Your task to perform on an android device: turn off wifi Image 0: 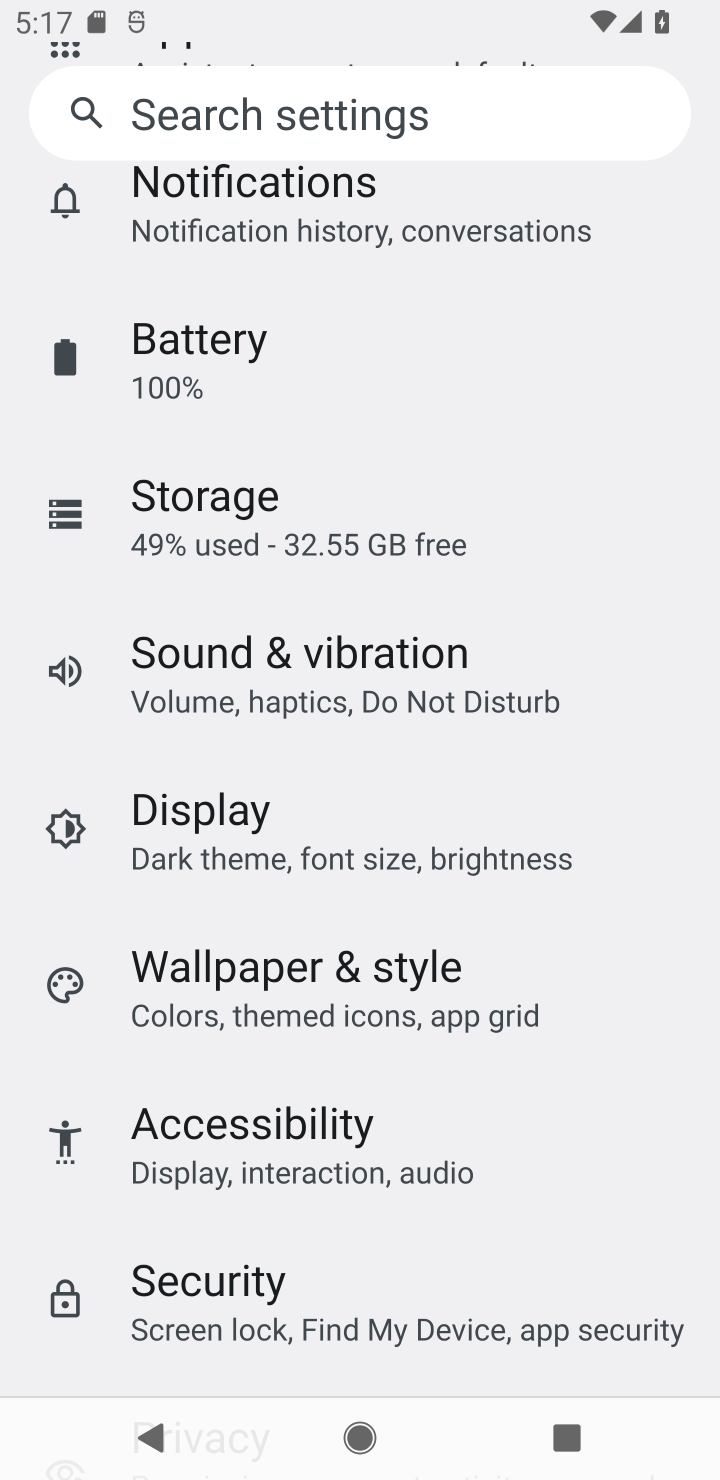
Step 0: drag from (538, 429) to (517, 1124)
Your task to perform on an android device: turn off wifi Image 1: 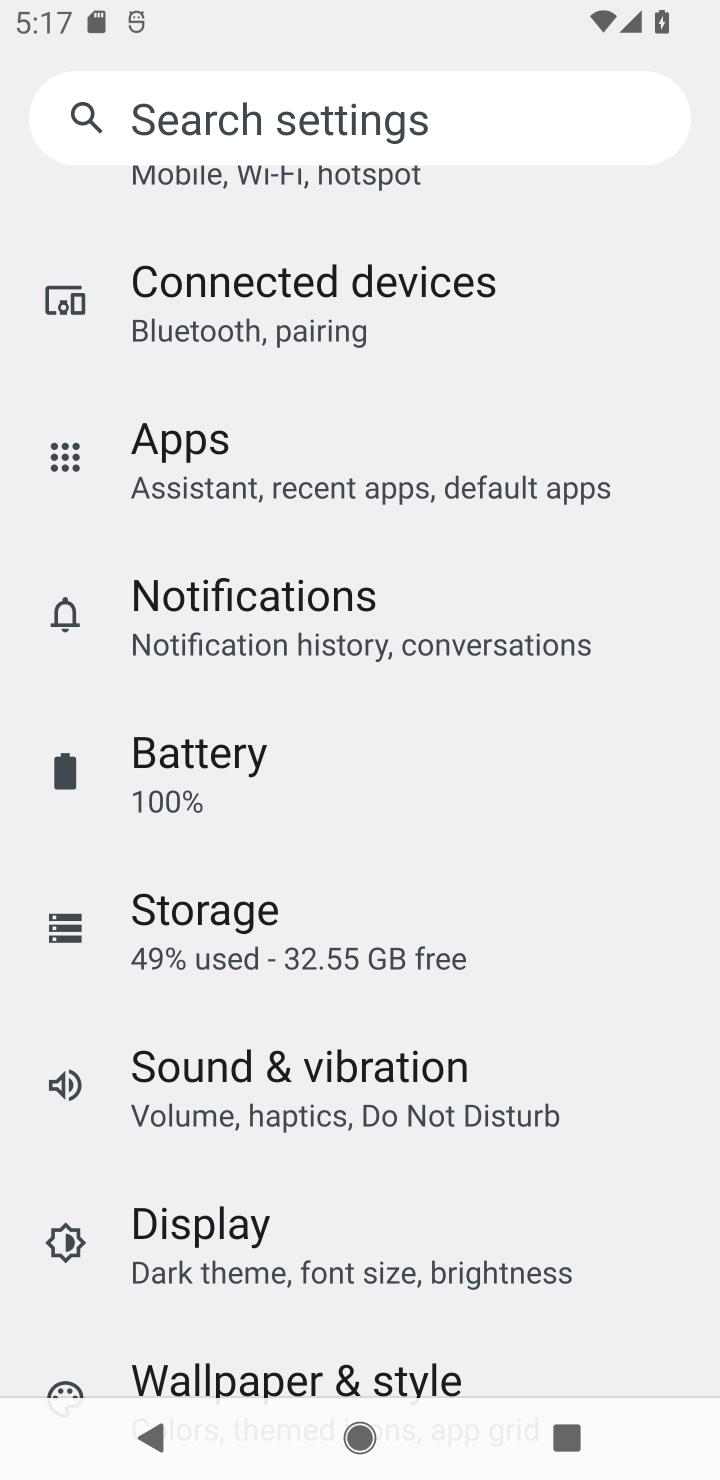
Step 1: drag from (613, 385) to (562, 1033)
Your task to perform on an android device: turn off wifi Image 2: 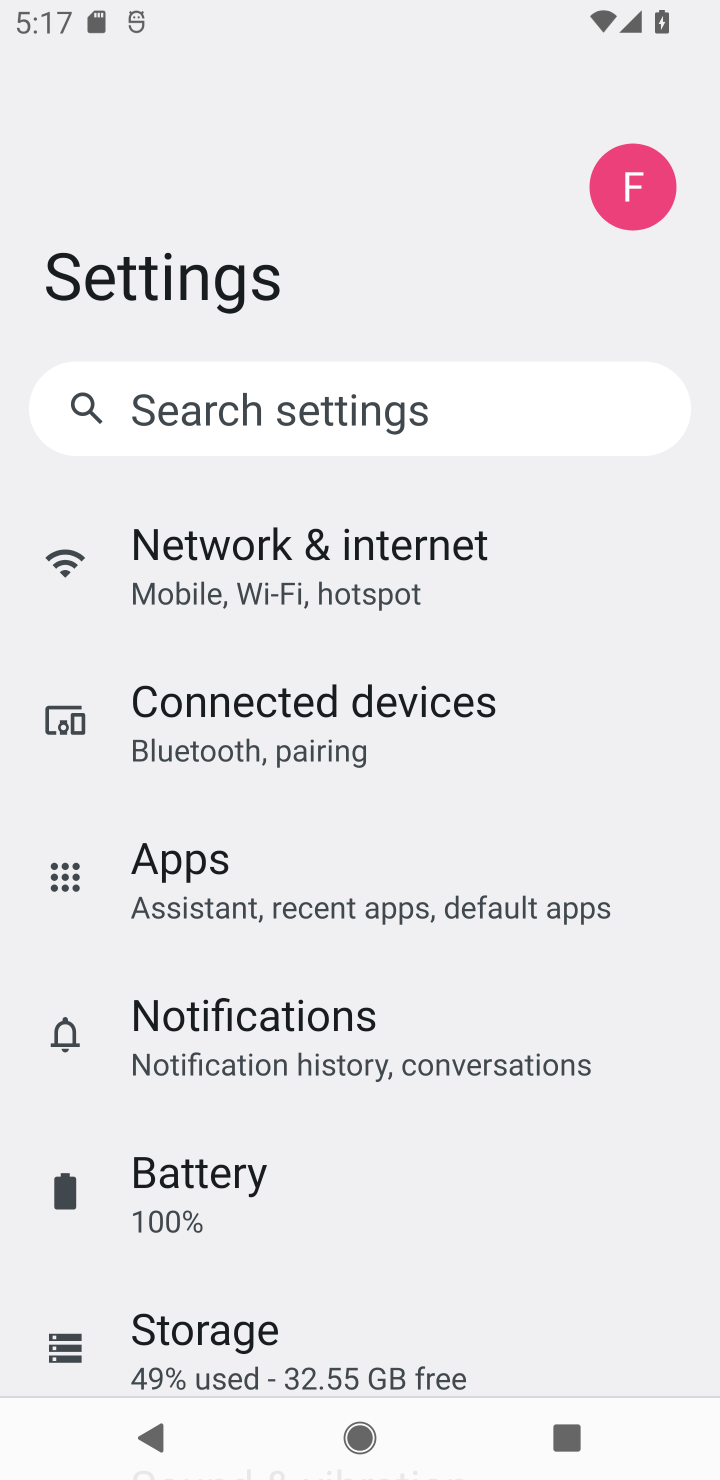
Step 2: click (234, 554)
Your task to perform on an android device: turn off wifi Image 3: 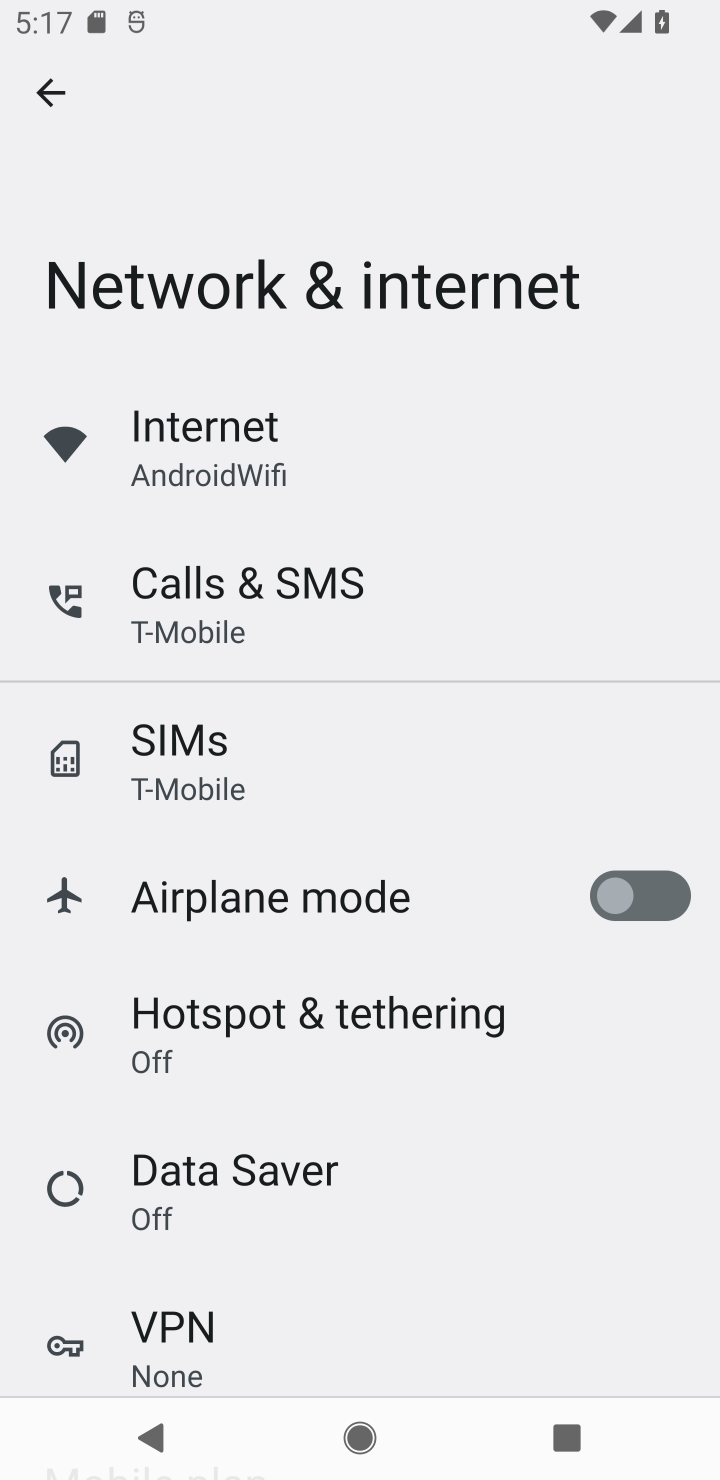
Step 3: click (199, 438)
Your task to perform on an android device: turn off wifi Image 4: 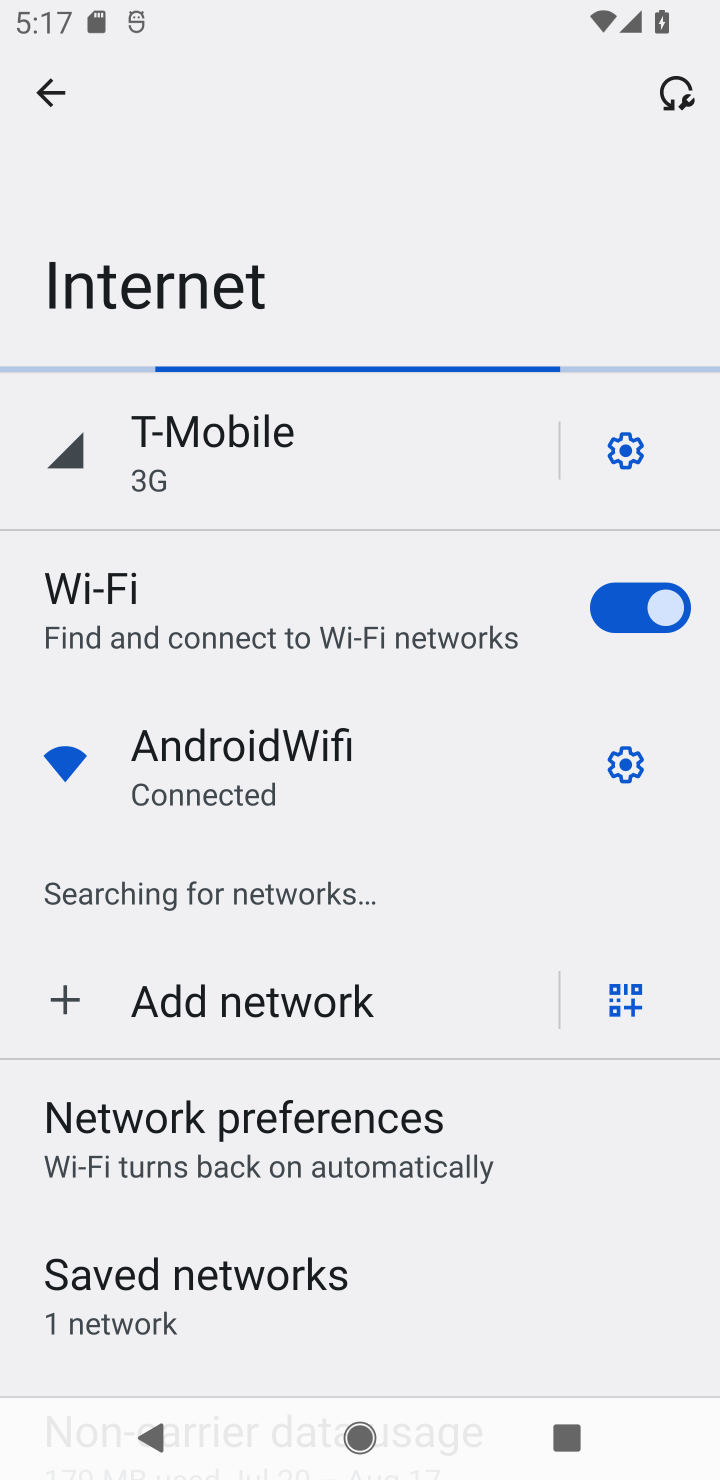
Step 4: click (619, 611)
Your task to perform on an android device: turn off wifi Image 5: 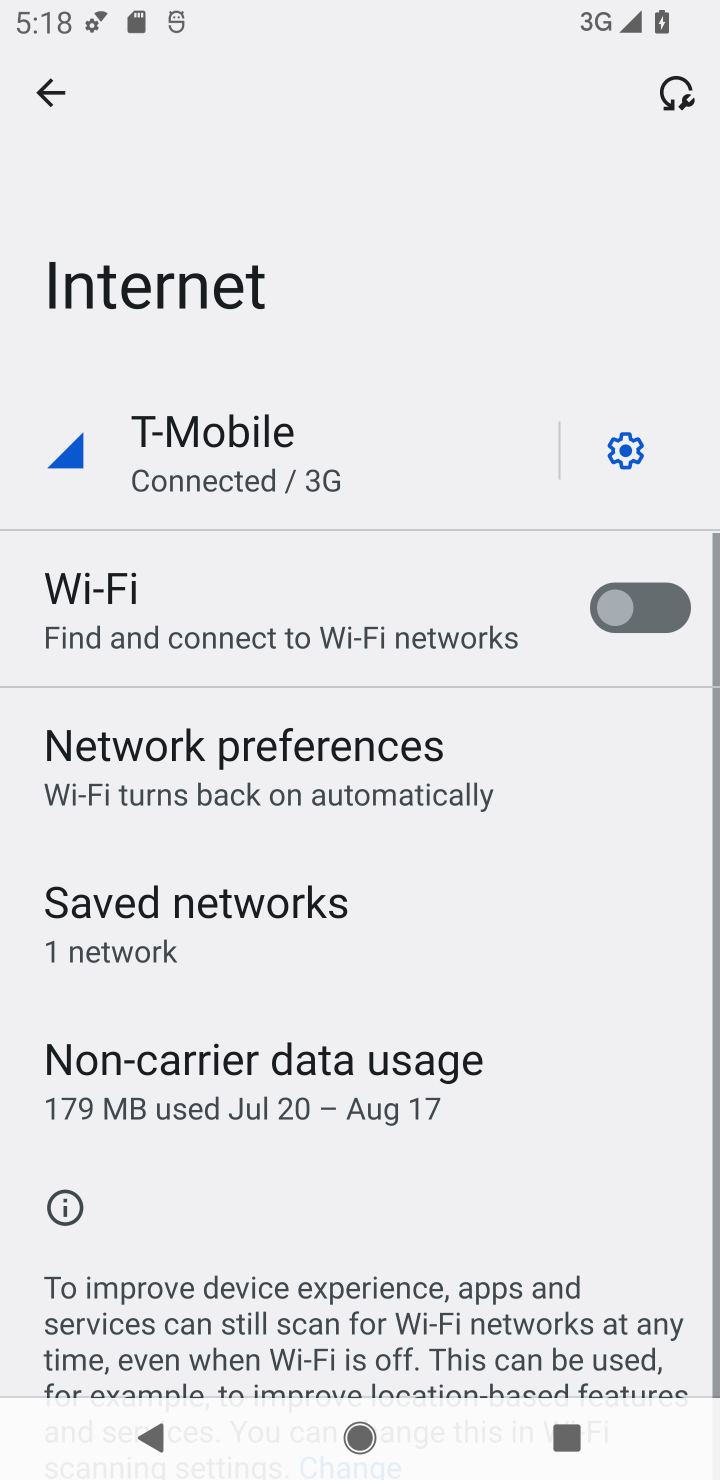
Step 5: task complete